Your task to perform on an android device: Go to notification settings Image 0: 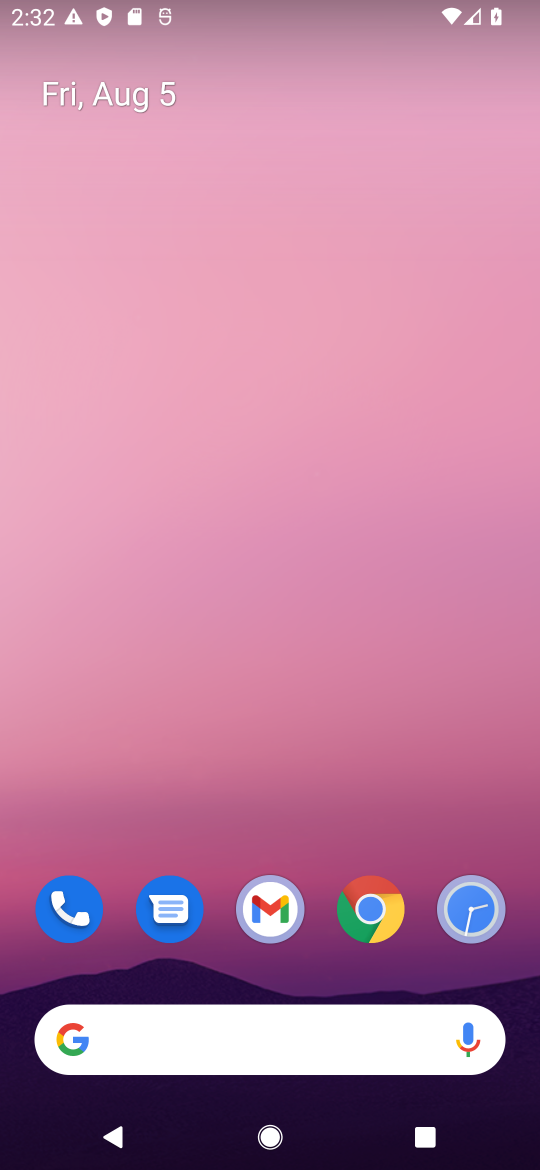
Step 0: press home button
Your task to perform on an android device: Go to notification settings Image 1: 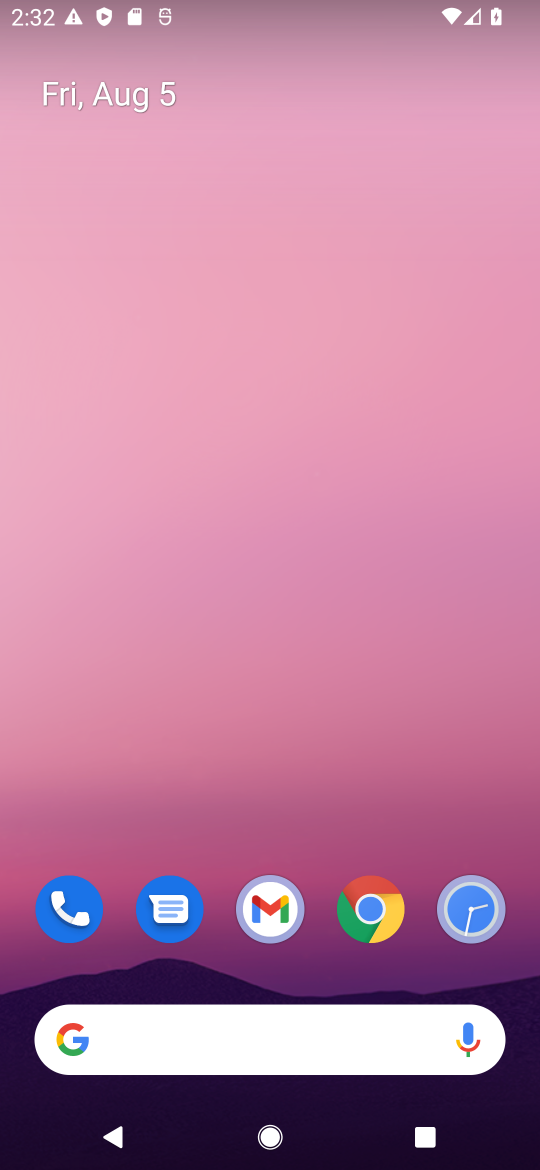
Step 1: drag from (316, 745) to (347, 193)
Your task to perform on an android device: Go to notification settings Image 2: 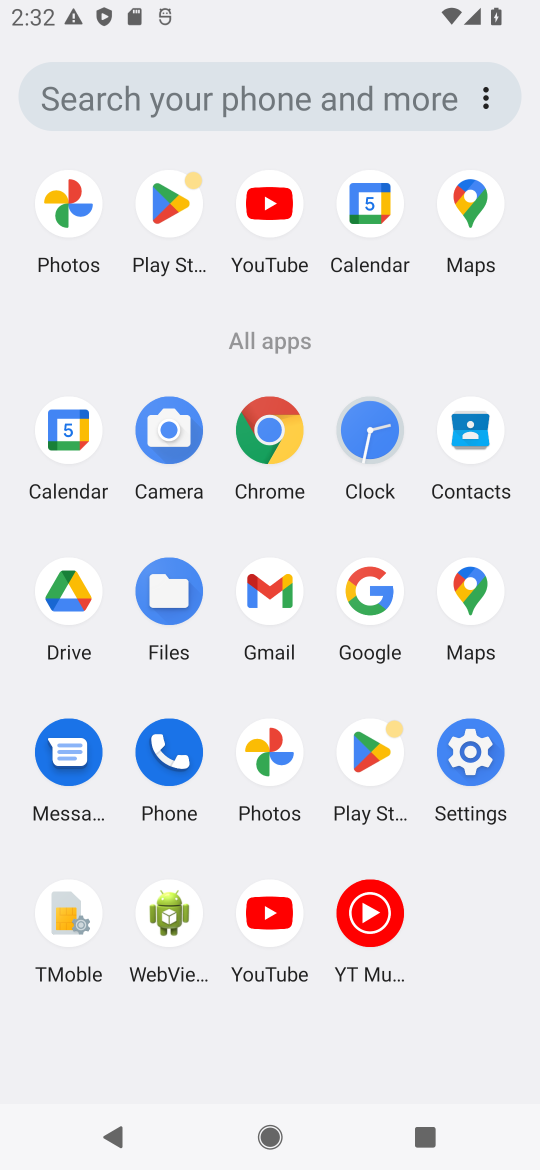
Step 2: click (473, 749)
Your task to perform on an android device: Go to notification settings Image 3: 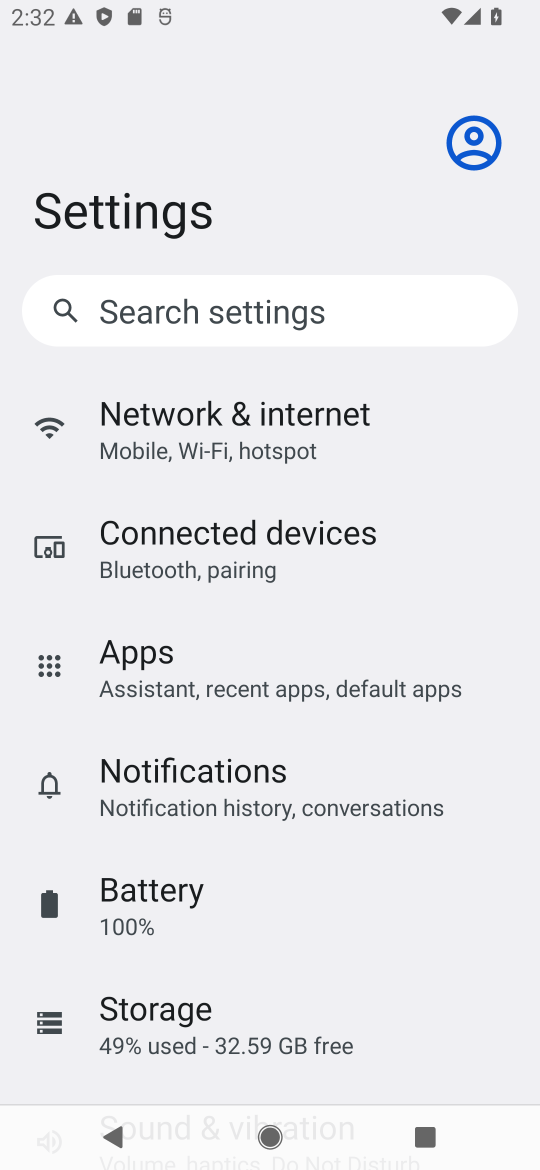
Step 3: drag from (425, 825) to (432, 673)
Your task to perform on an android device: Go to notification settings Image 4: 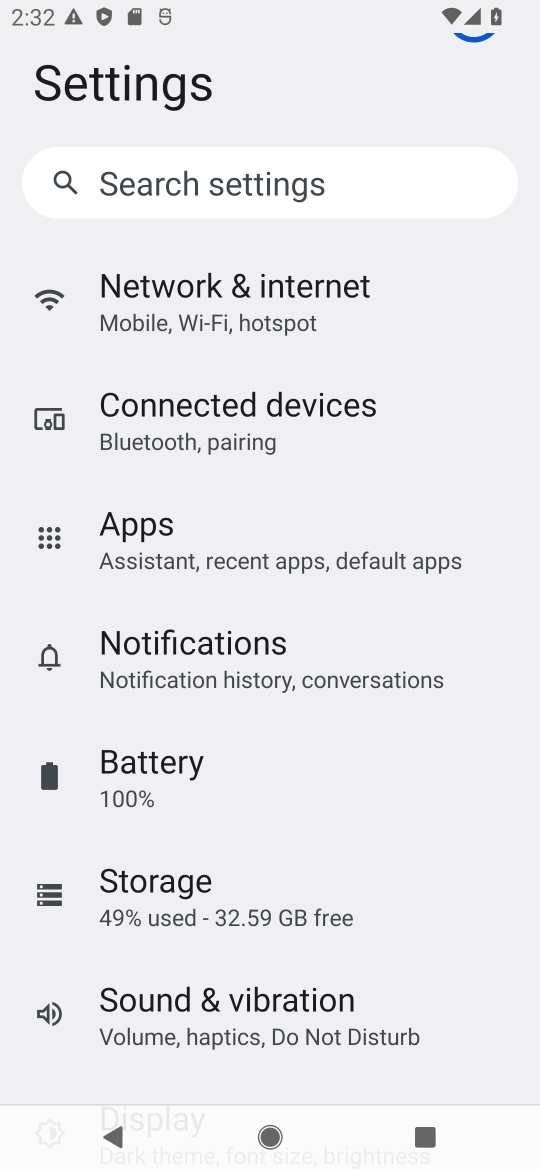
Step 4: drag from (441, 907) to (421, 597)
Your task to perform on an android device: Go to notification settings Image 5: 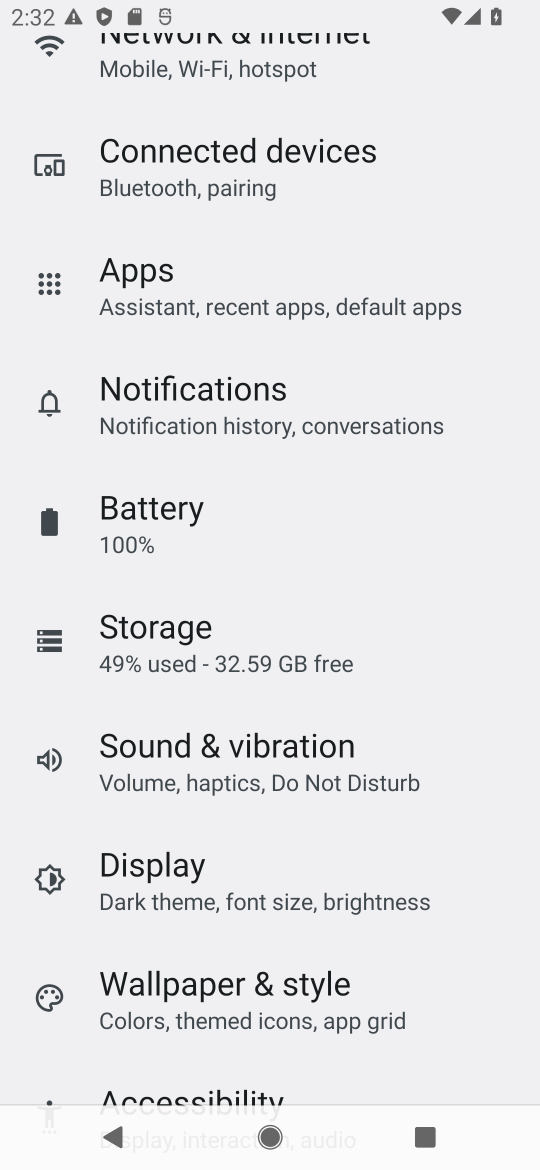
Step 5: drag from (438, 943) to (428, 637)
Your task to perform on an android device: Go to notification settings Image 6: 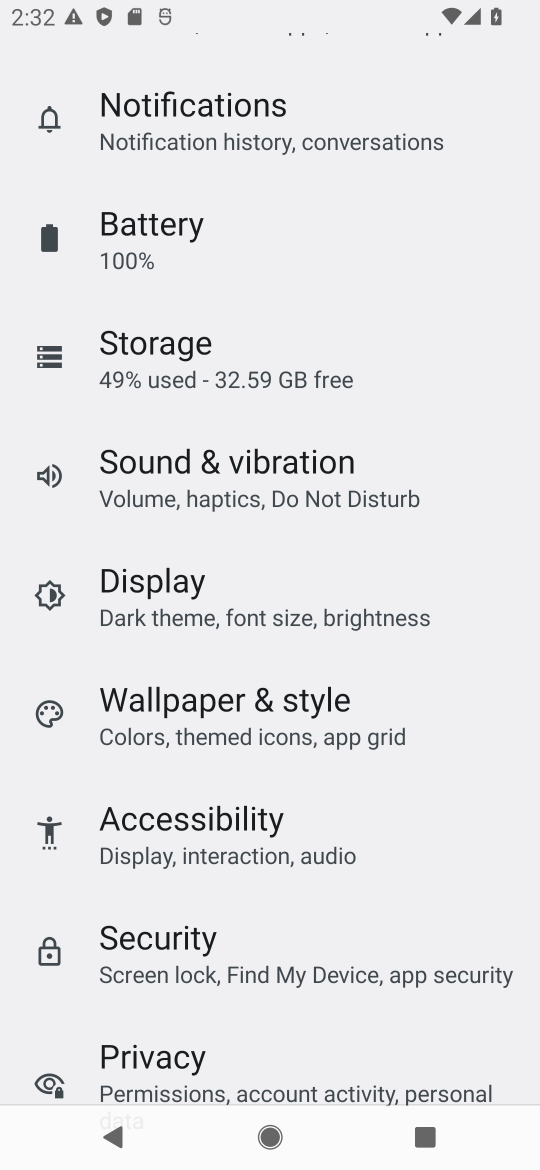
Step 6: drag from (396, 876) to (387, 559)
Your task to perform on an android device: Go to notification settings Image 7: 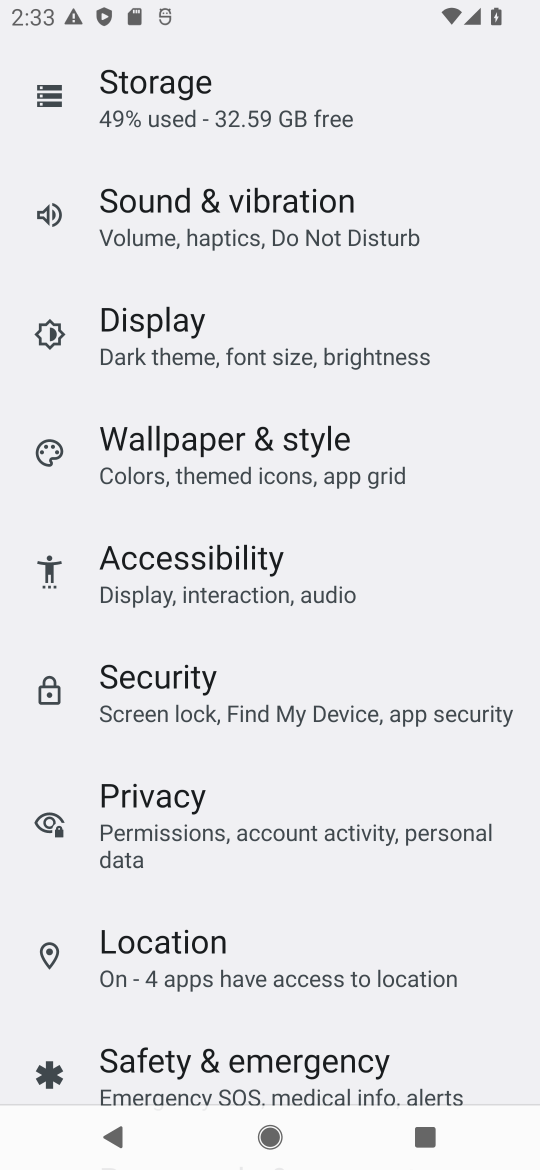
Step 7: drag from (440, 491) to (452, 697)
Your task to perform on an android device: Go to notification settings Image 8: 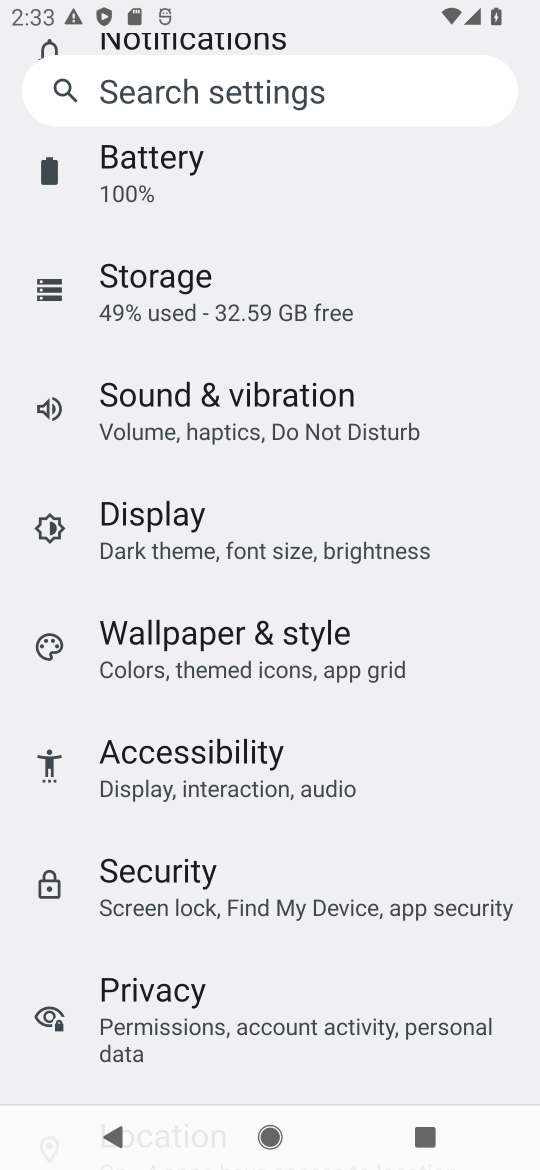
Step 8: drag from (479, 459) to (488, 723)
Your task to perform on an android device: Go to notification settings Image 9: 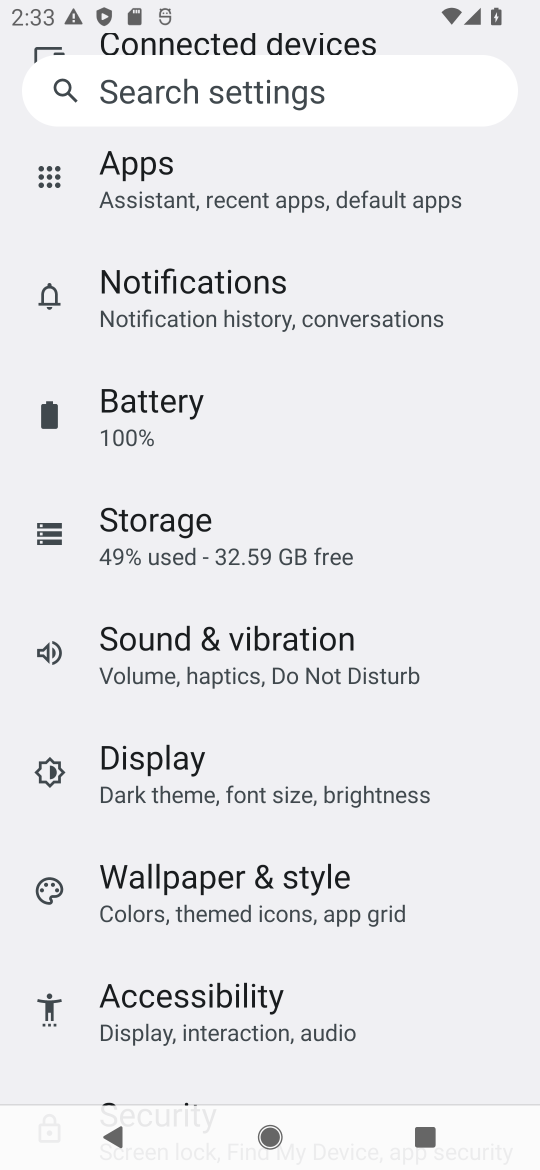
Step 9: drag from (478, 362) to (466, 814)
Your task to perform on an android device: Go to notification settings Image 10: 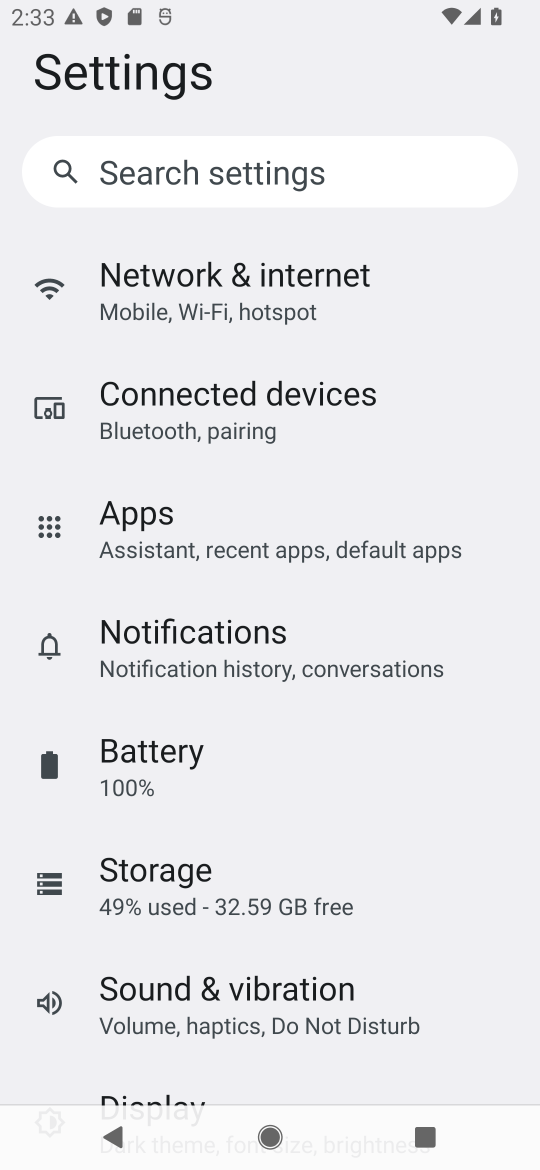
Step 10: click (324, 639)
Your task to perform on an android device: Go to notification settings Image 11: 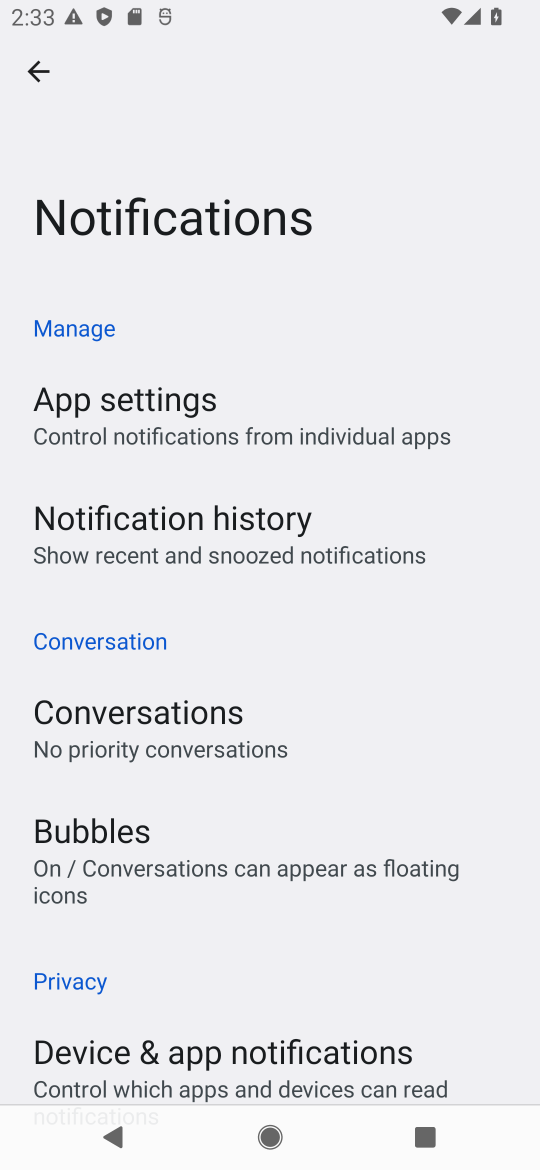
Step 11: task complete